Your task to perform on an android device: open app "DoorDash - Food Delivery" Image 0: 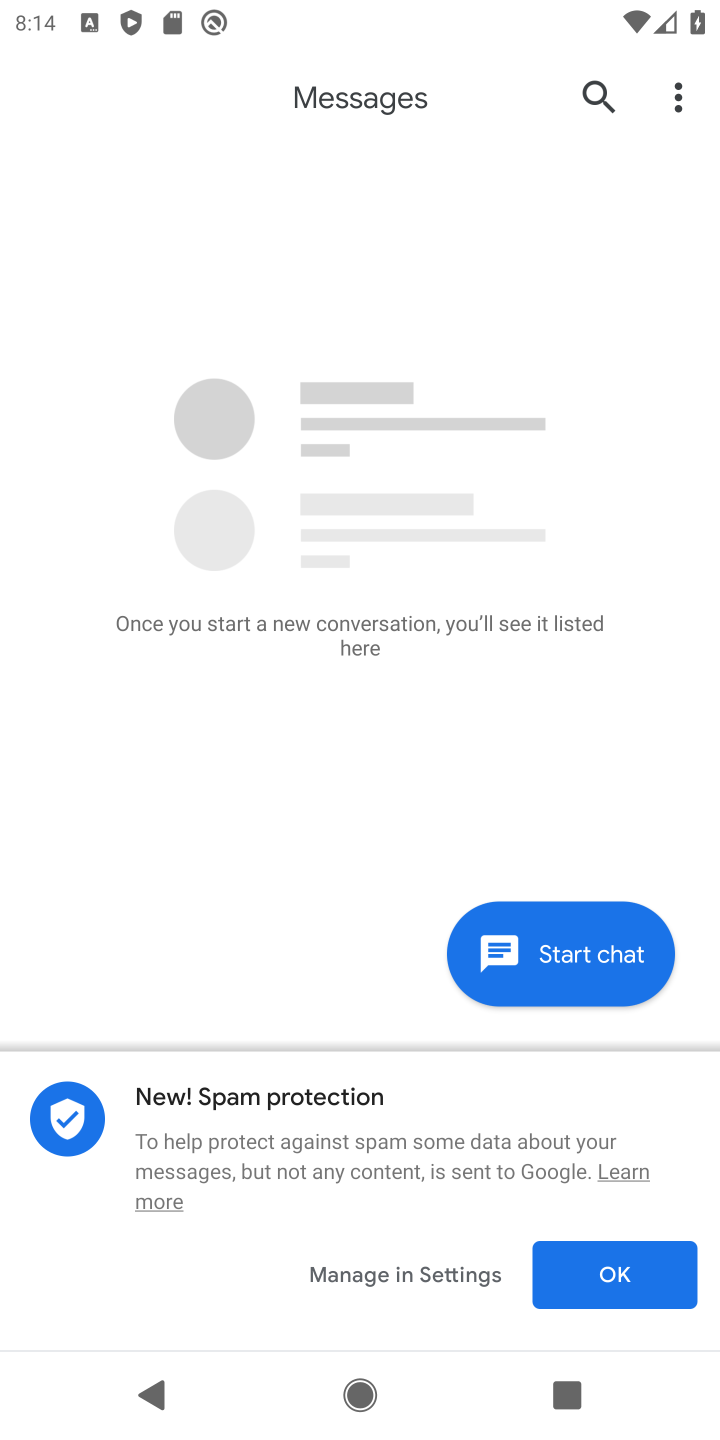
Step 0: press home button
Your task to perform on an android device: open app "DoorDash - Food Delivery" Image 1: 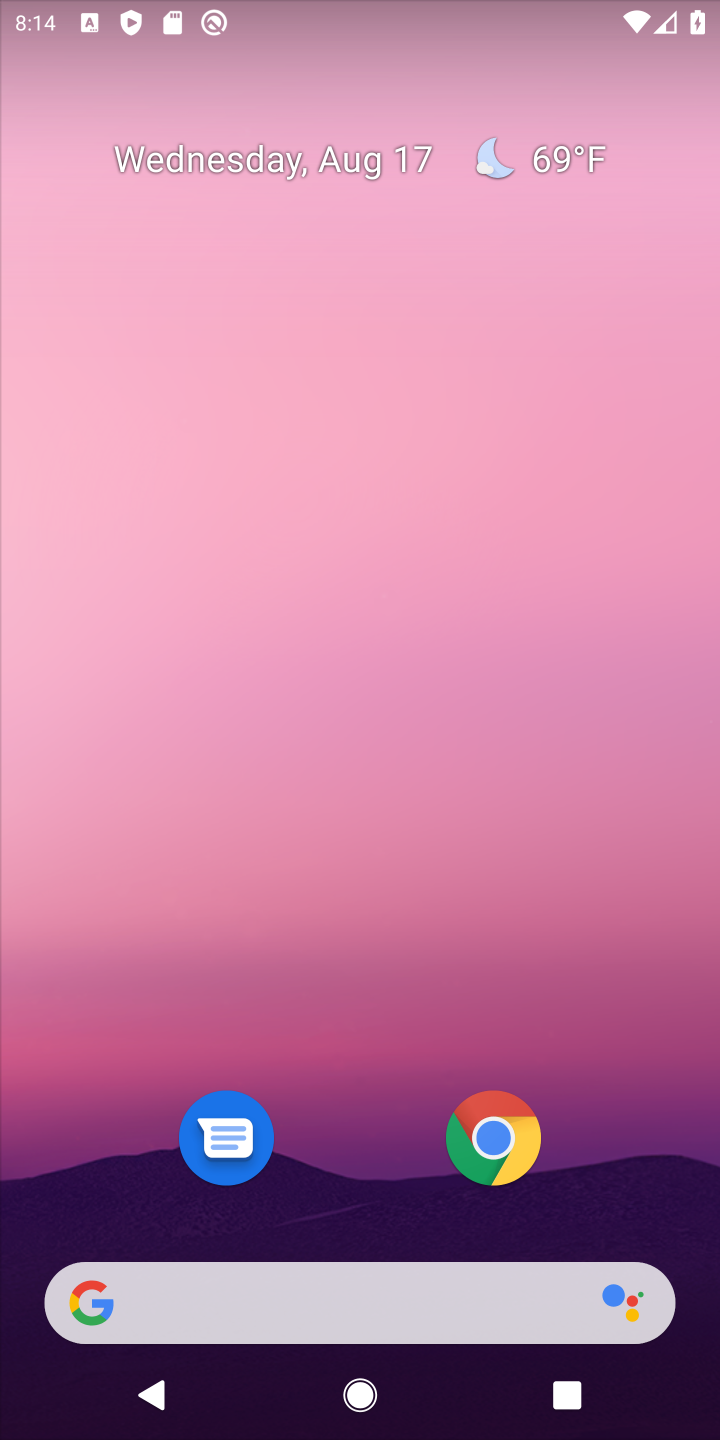
Step 1: click (412, 489)
Your task to perform on an android device: open app "DoorDash - Food Delivery" Image 2: 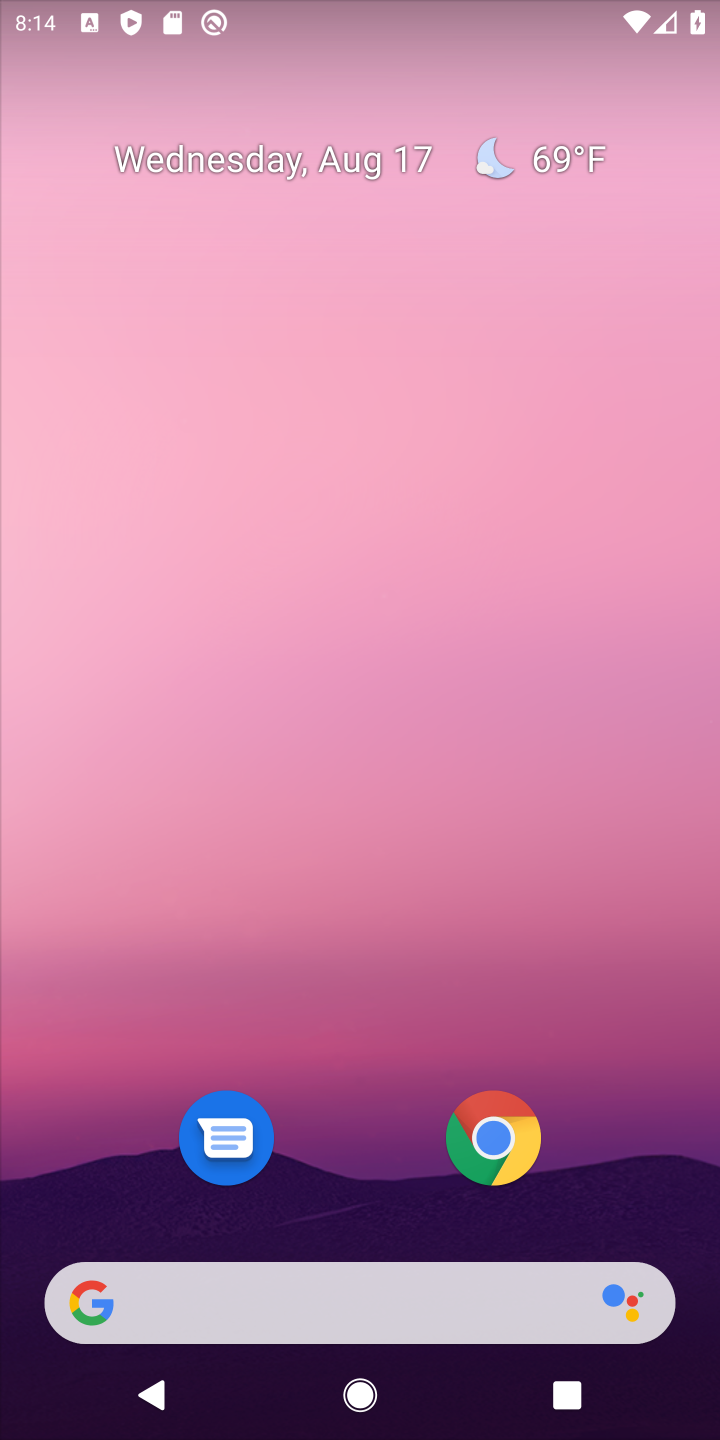
Step 2: drag from (348, 1050) to (430, 450)
Your task to perform on an android device: open app "DoorDash - Food Delivery" Image 3: 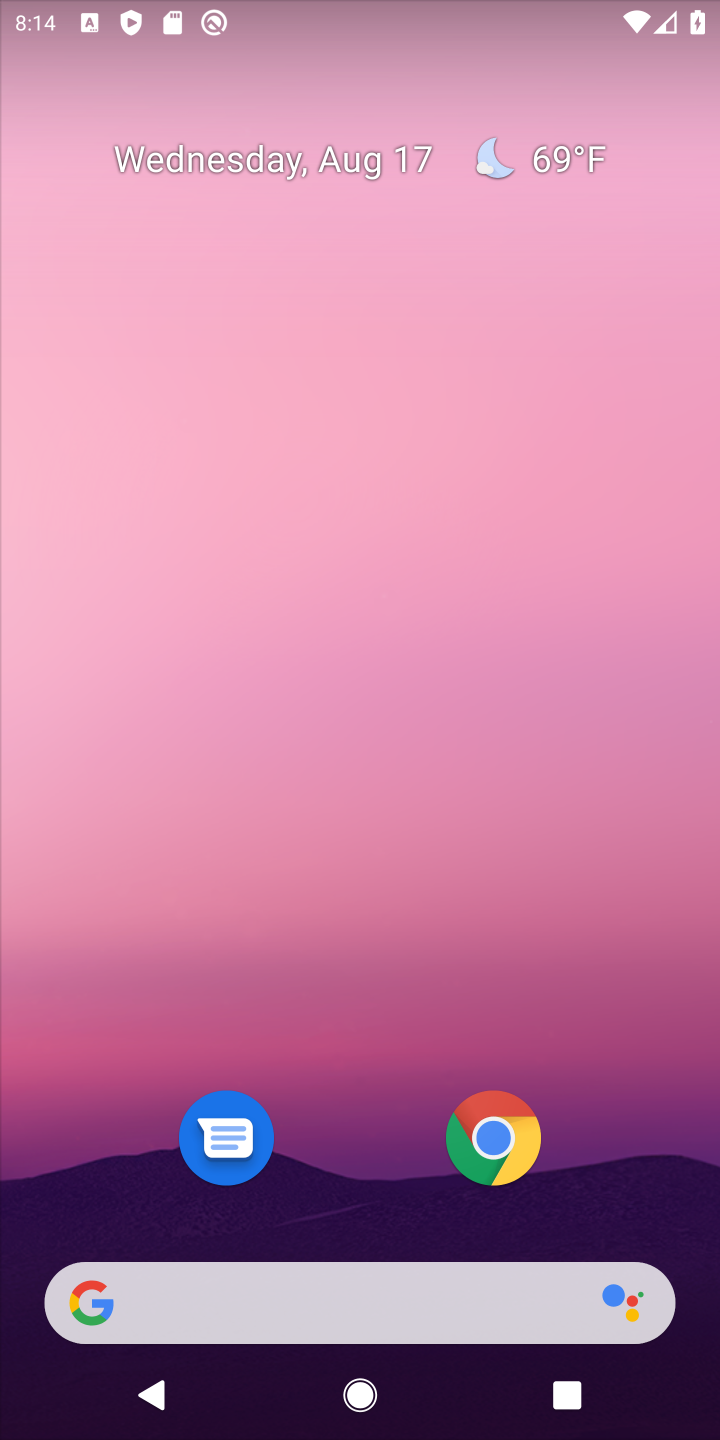
Step 3: drag from (343, 1278) to (375, 474)
Your task to perform on an android device: open app "DoorDash - Food Delivery" Image 4: 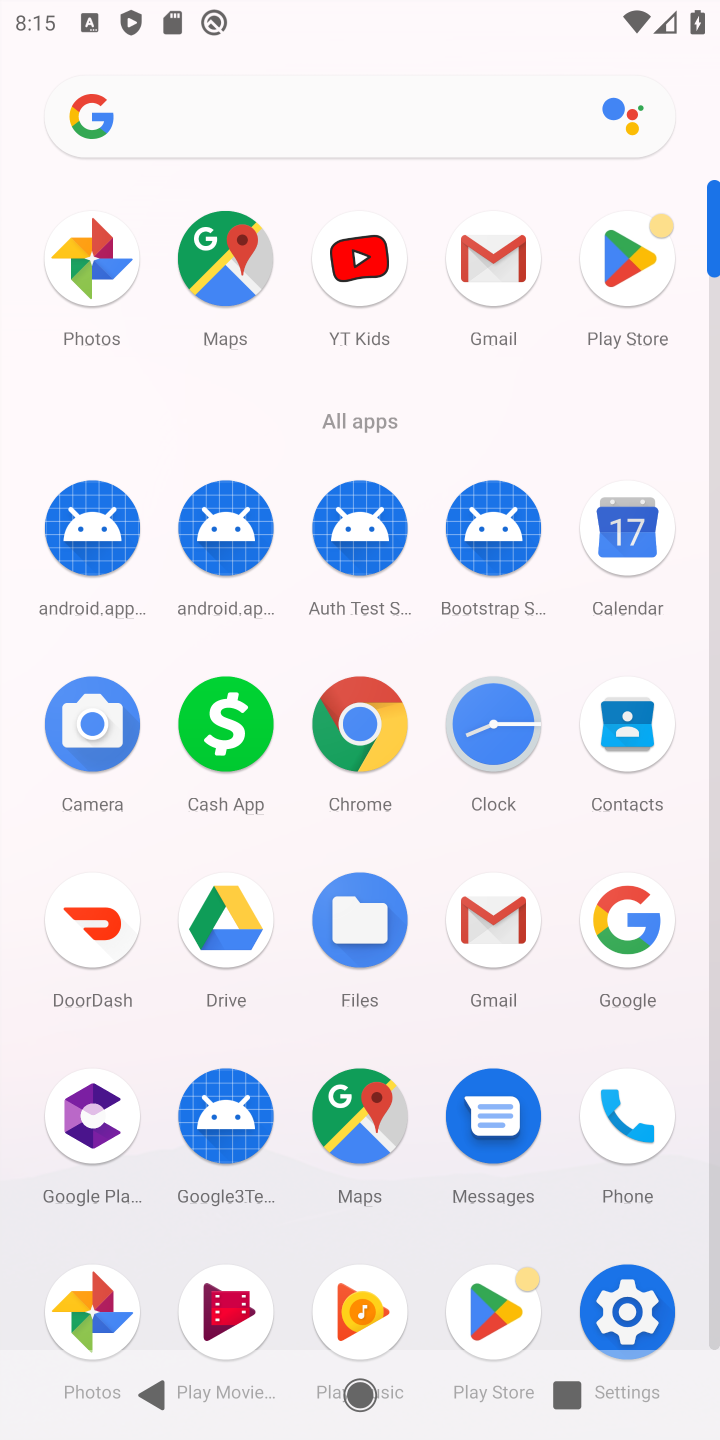
Step 4: click (612, 264)
Your task to perform on an android device: open app "DoorDash - Food Delivery" Image 5: 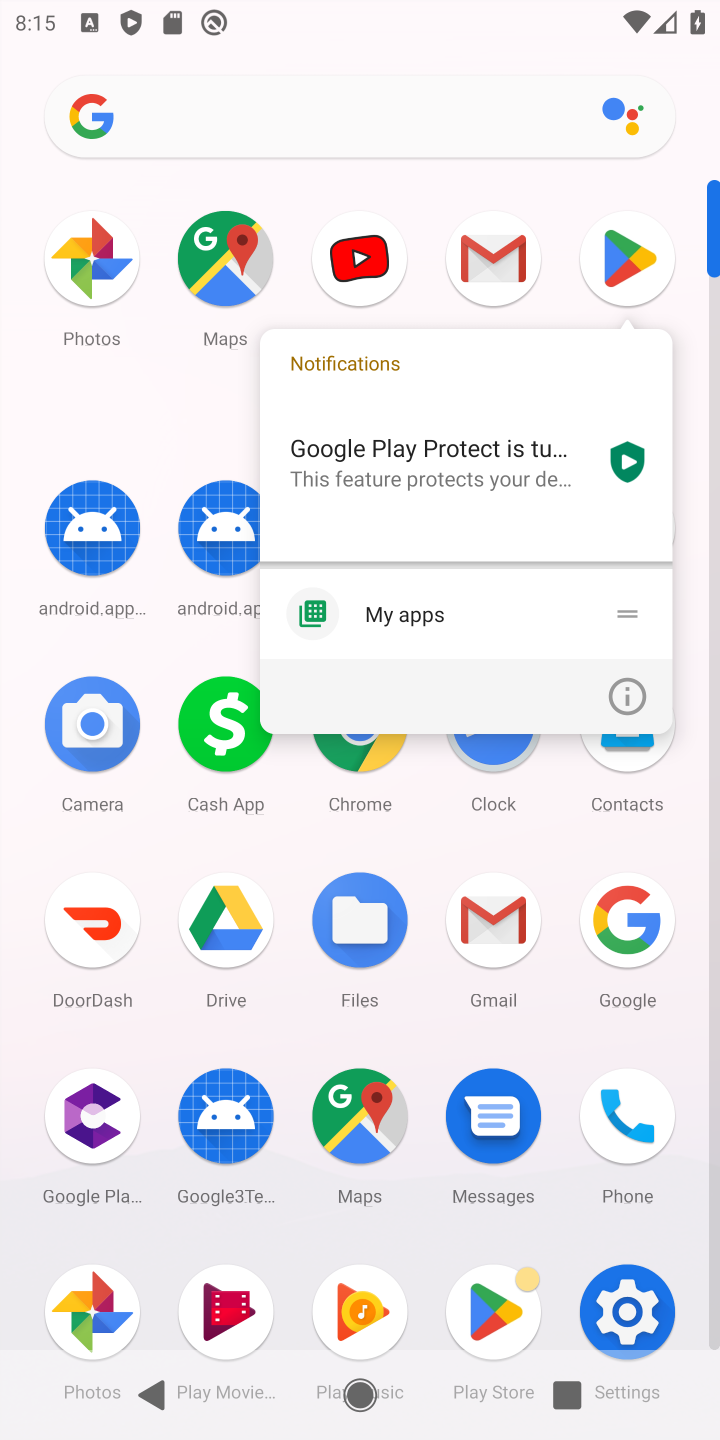
Step 5: click (626, 250)
Your task to perform on an android device: open app "DoorDash - Food Delivery" Image 6: 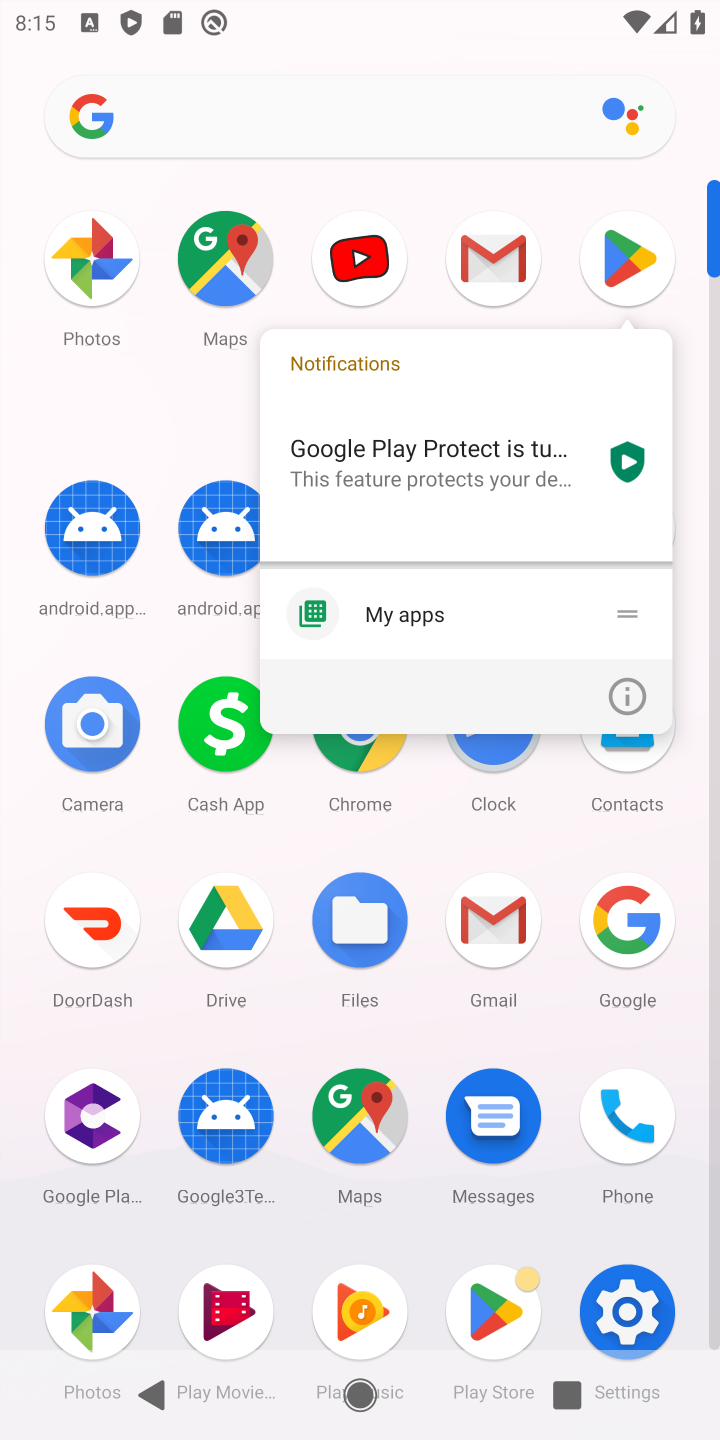
Step 6: click (626, 250)
Your task to perform on an android device: open app "DoorDash - Food Delivery" Image 7: 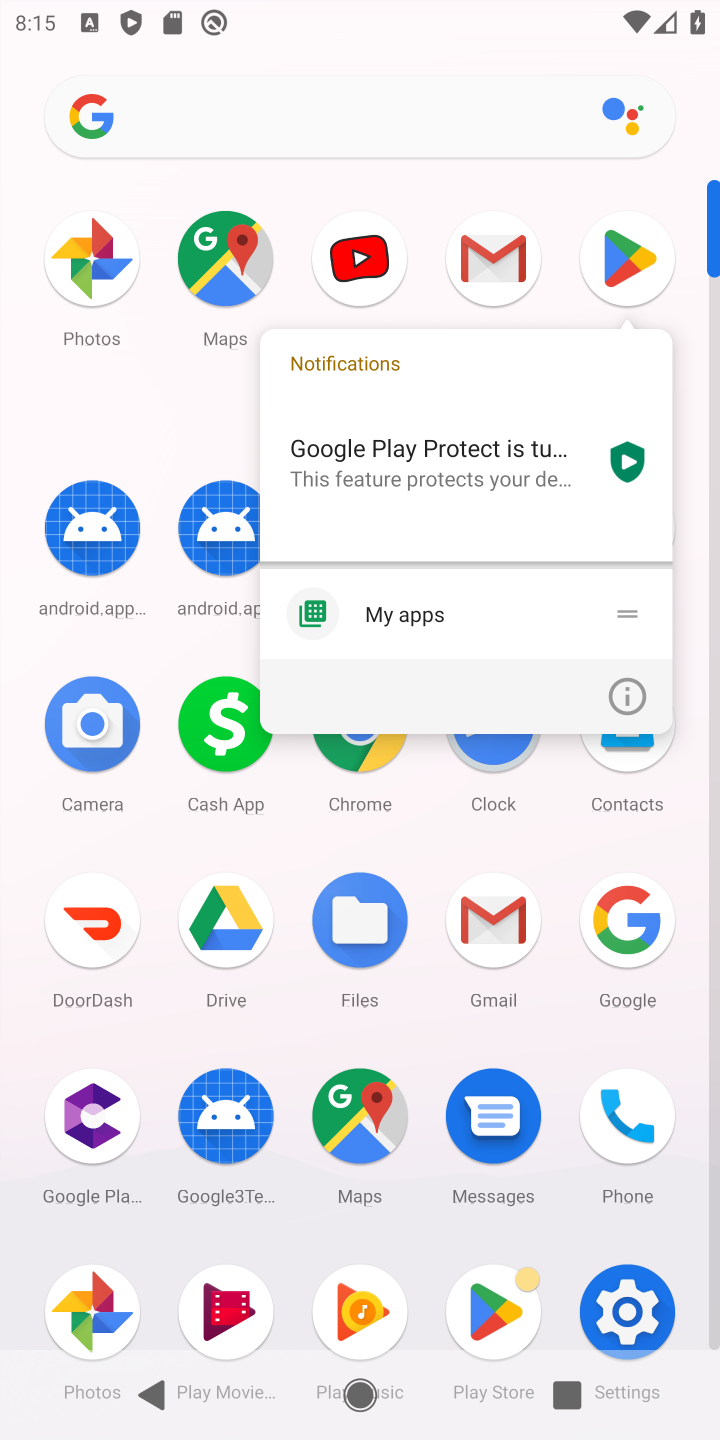
Step 7: click (626, 250)
Your task to perform on an android device: open app "DoorDash - Food Delivery" Image 8: 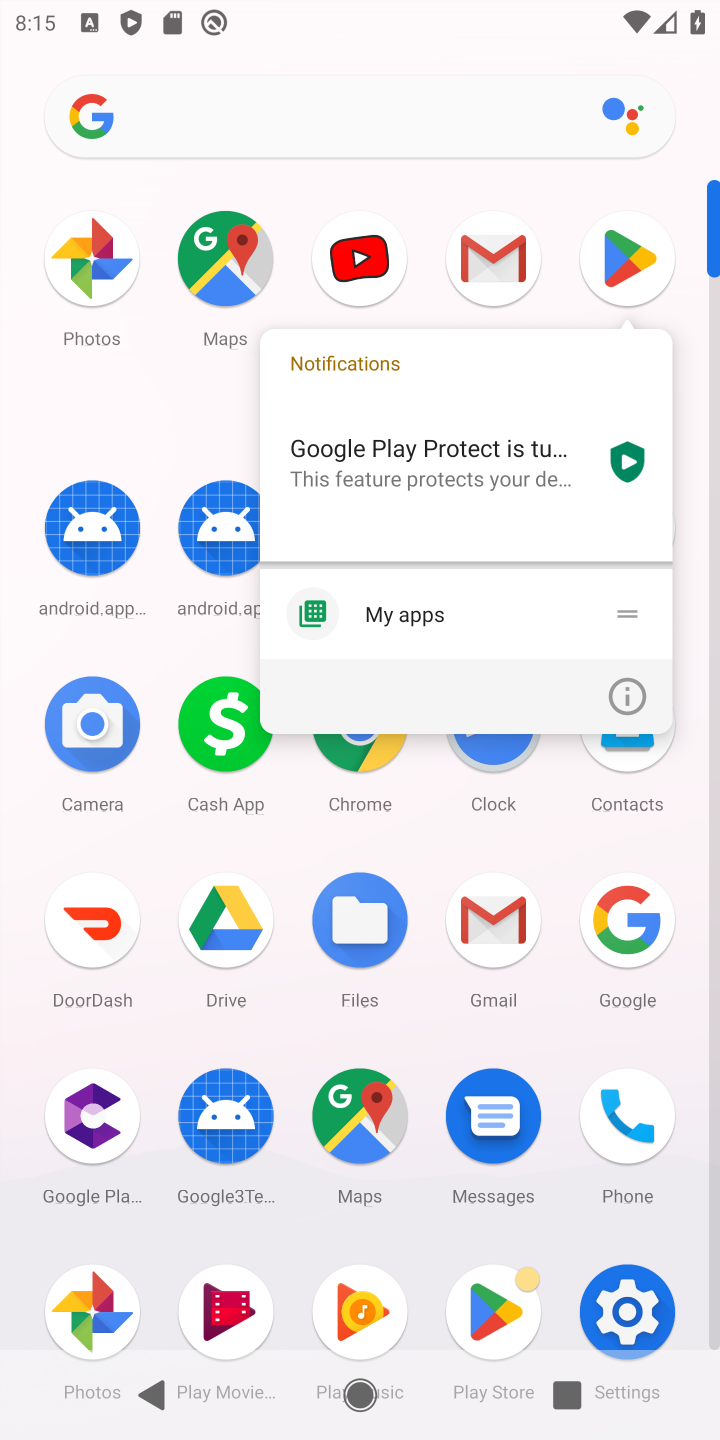
Step 8: click (421, 853)
Your task to perform on an android device: open app "DoorDash - Food Delivery" Image 9: 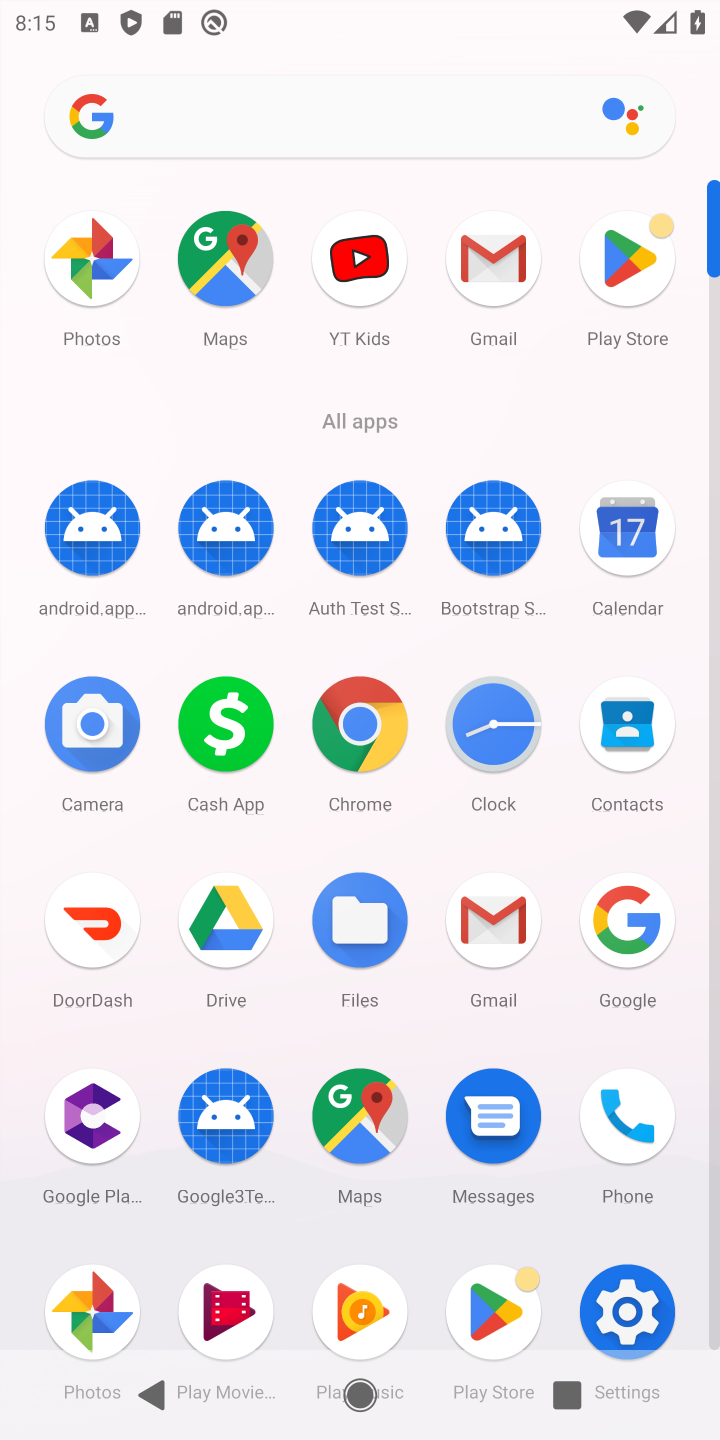
Step 9: click (478, 1305)
Your task to perform on an android device: open app "DoorDash - Food Delivery" Image 10: 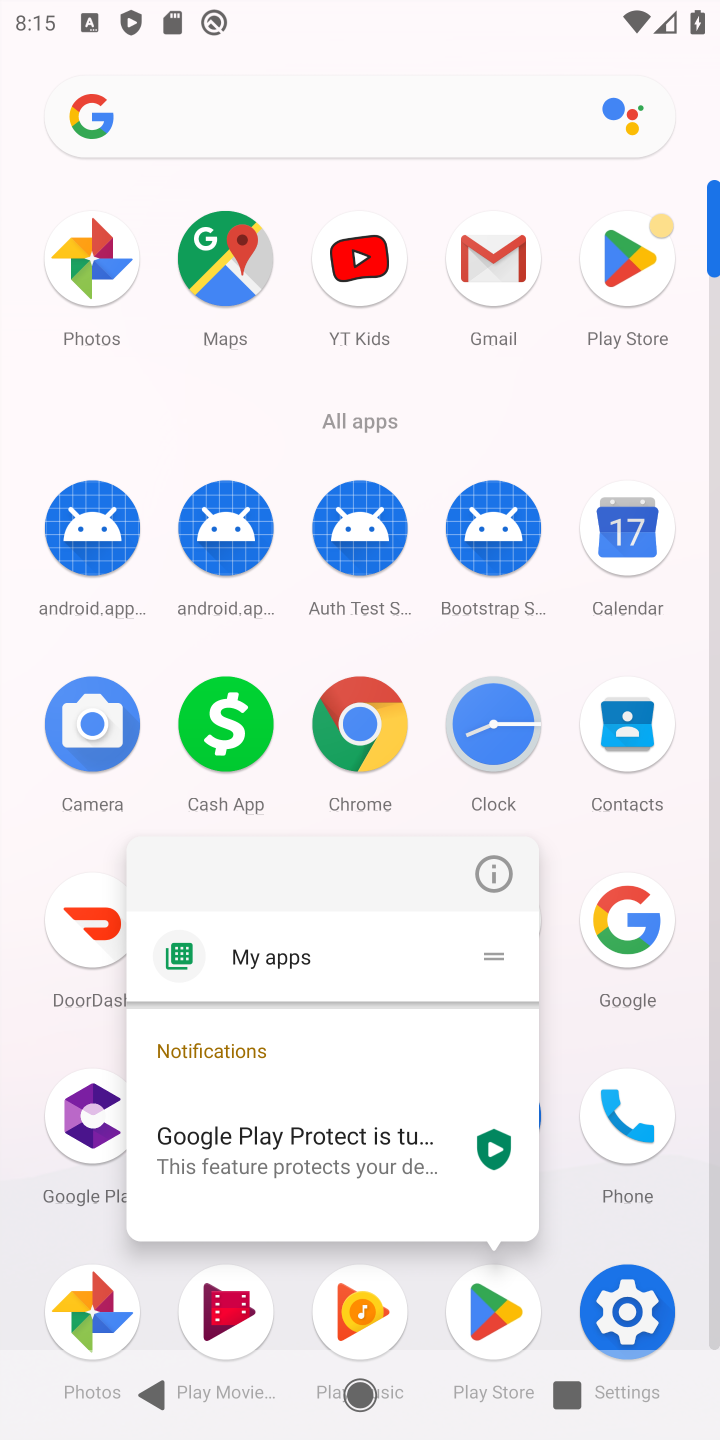
Step 10: click (478, 1305)
Your task to perform on an android device: open app "DoorDash - Food Delivery" Image 11: 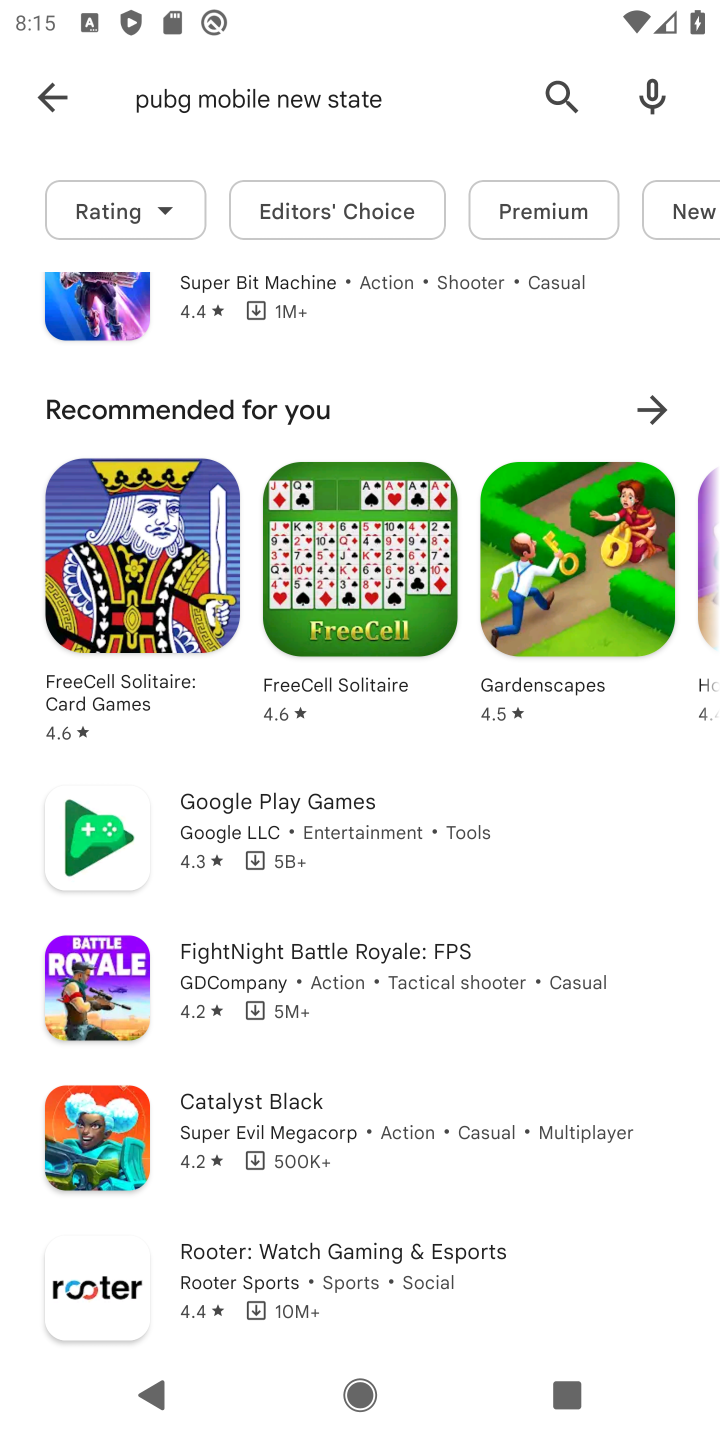
Step 11: click (49, 96)
Your task to perform on an android device: open app "DoorDash - Food Delivery" Image 12: 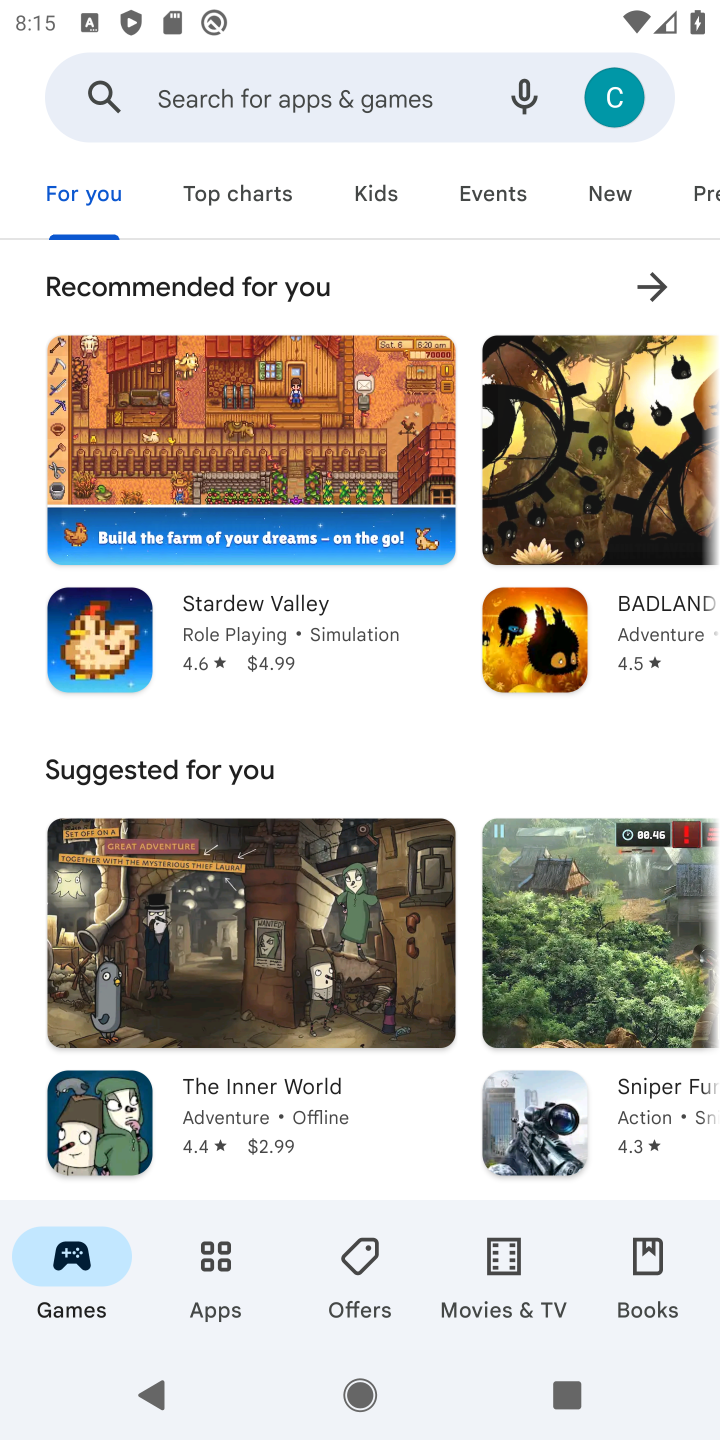
Step 12: click (343, 97)
Your task to perform on an android device: open app "DoorDash - Food Delivery" Image 13: 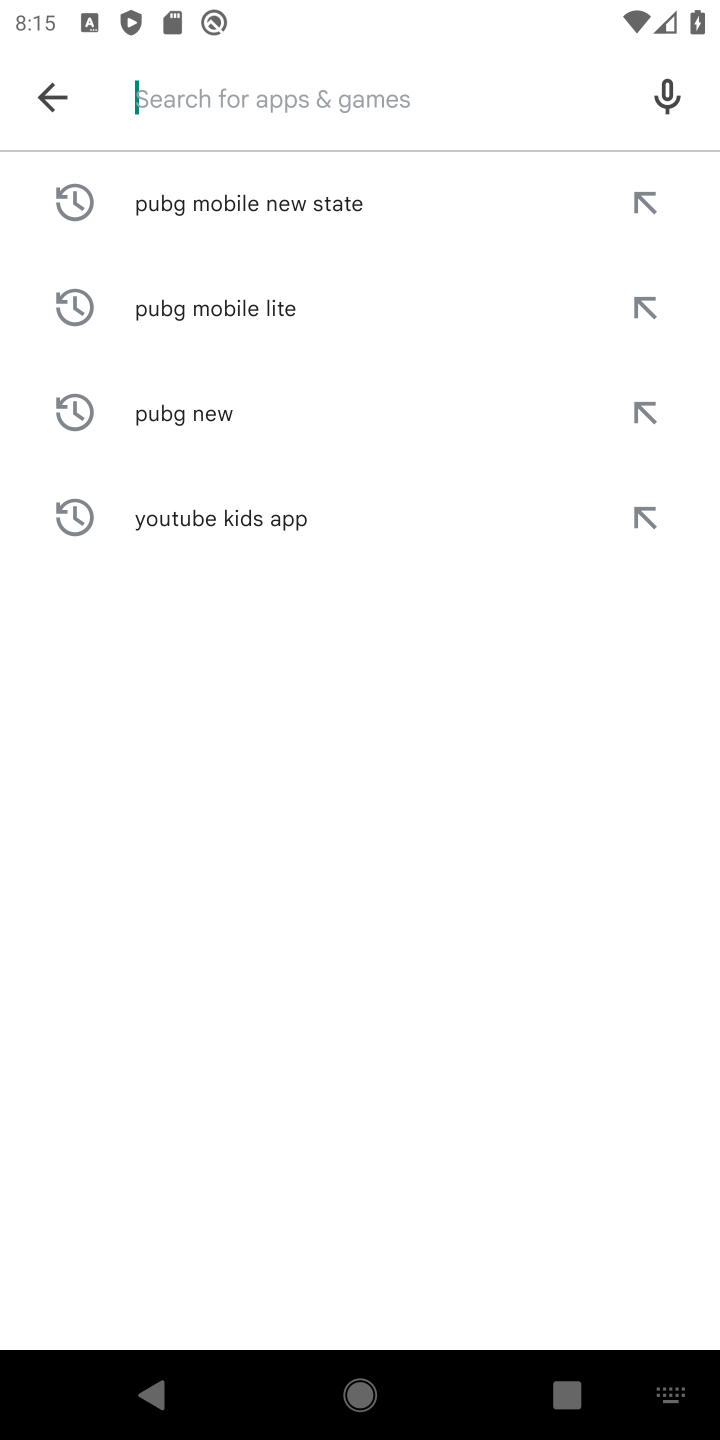
Step 13: type "DoorDash "
Your task to perform on an android device: open app "DoorDash - Food Delivery" Image 14: 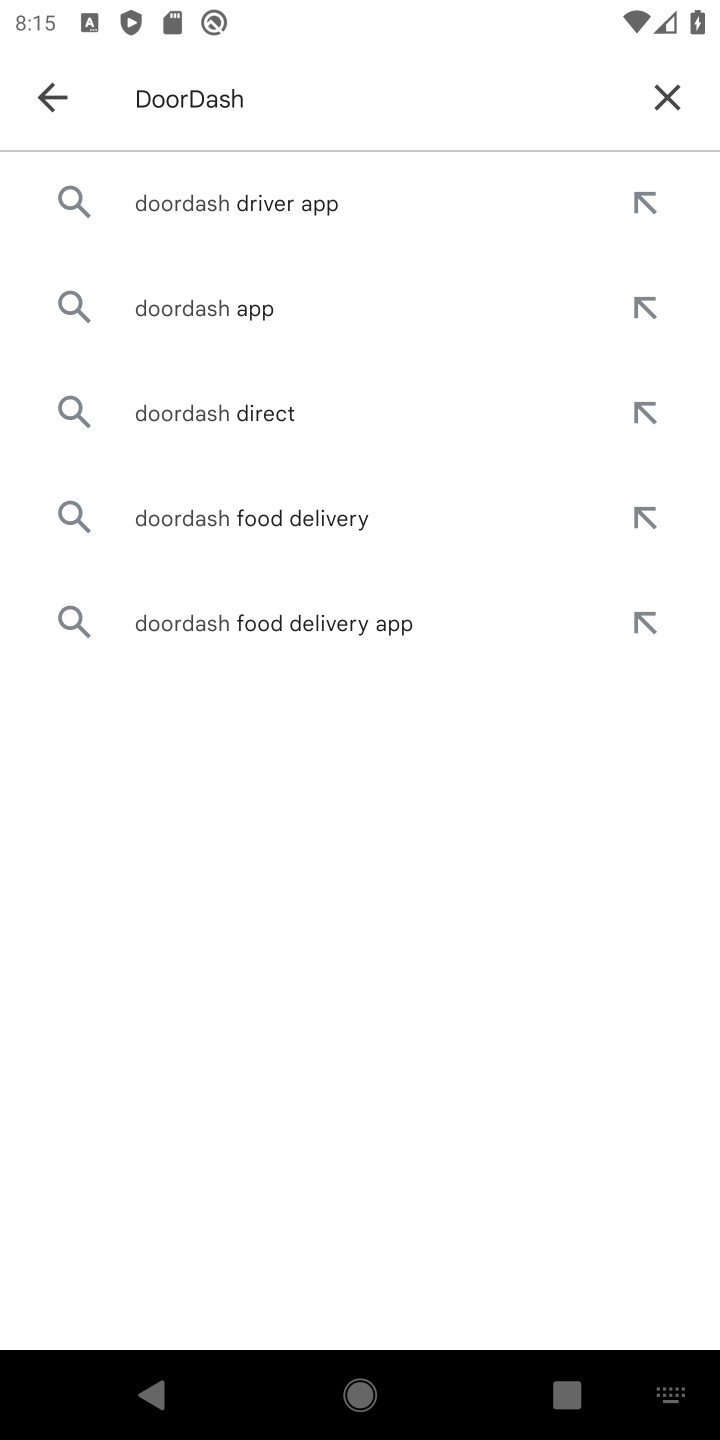
Step 14: click (234, 304)
Your task to perform on an android device: open app "DoorDash - Food Delivery" Image 15: 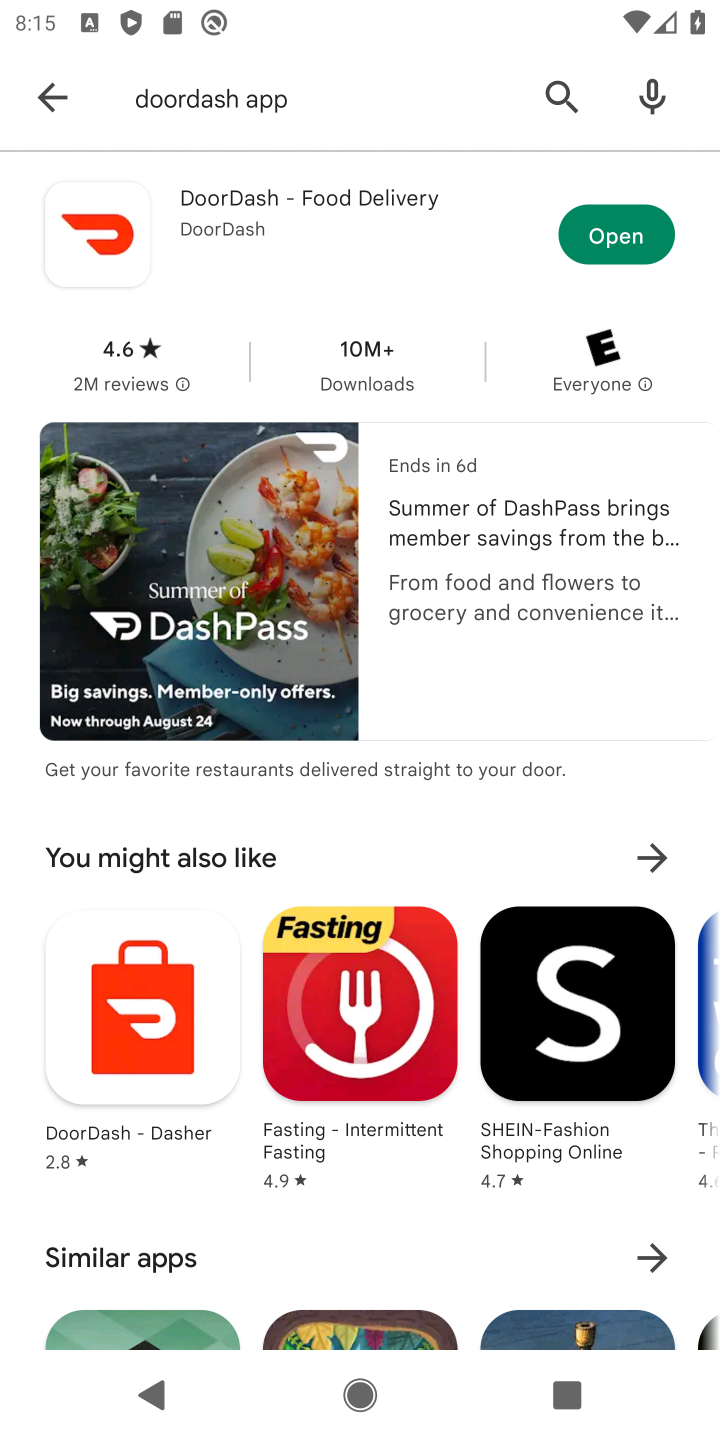
Step 15: click (634, 224)
Your task to perform on an android device: open app "DoorDash - Food Delivery" Image 16: 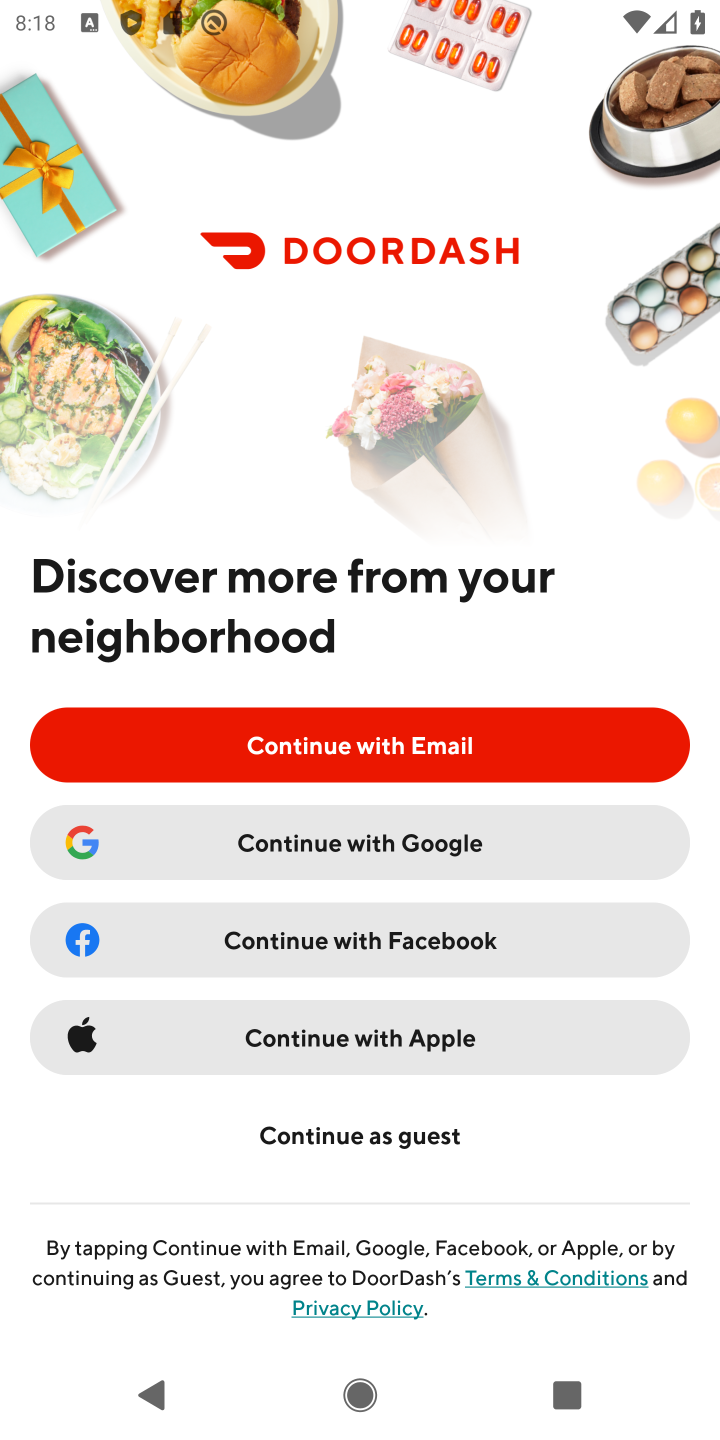
Step 16: task complete